Your task to perform on an android device: Search for Italian restaurants on Maps Image 0: 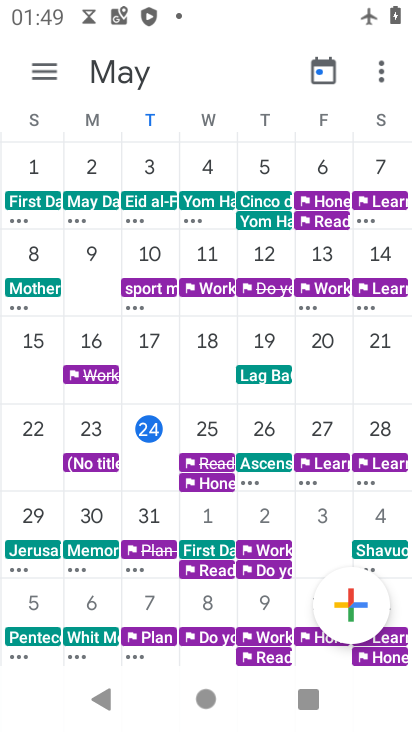
Step 0: press home button
Your task to perform on an android device: Search for Italian restaurants on Maps Image 1: 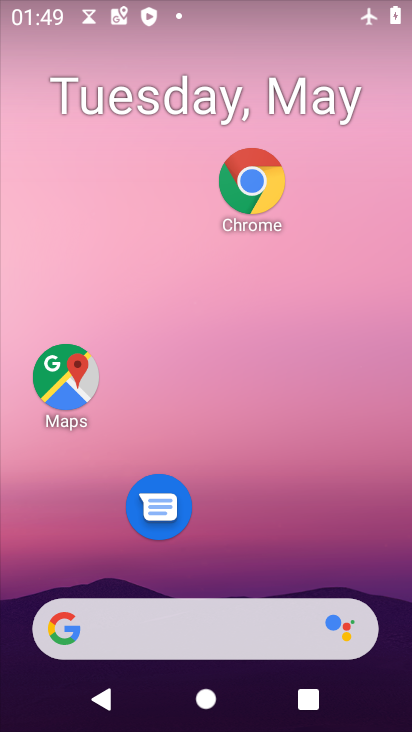
Step 1: drag from (336, 578) to (311, 265)
Your task to perform on an android device: Search for Italian restaurants on Maps Image 2: 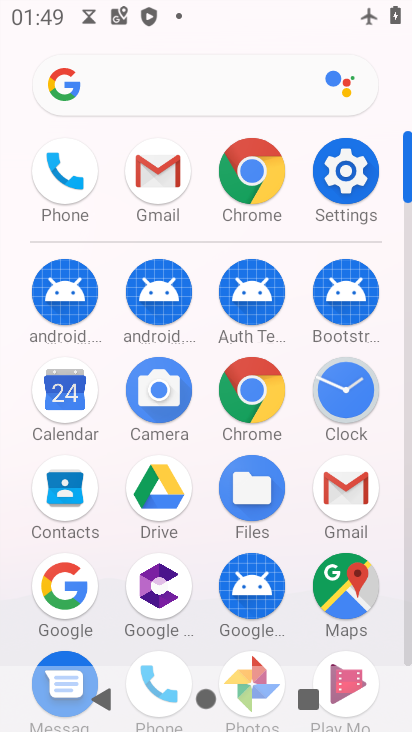
Step 2: click (344, 577)
Your task to perform on an android device: Search for Italian restaurants on Maps Image 3: 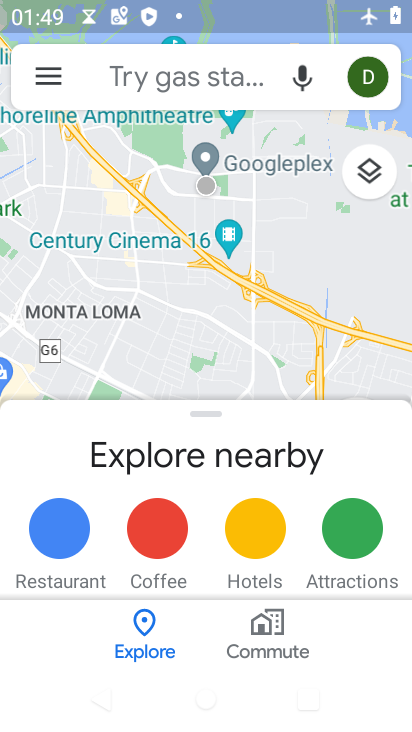
Step 3: click (257, 63)
Your task to perform on an android device: Search for Italian restaurants on Maps Image 4: 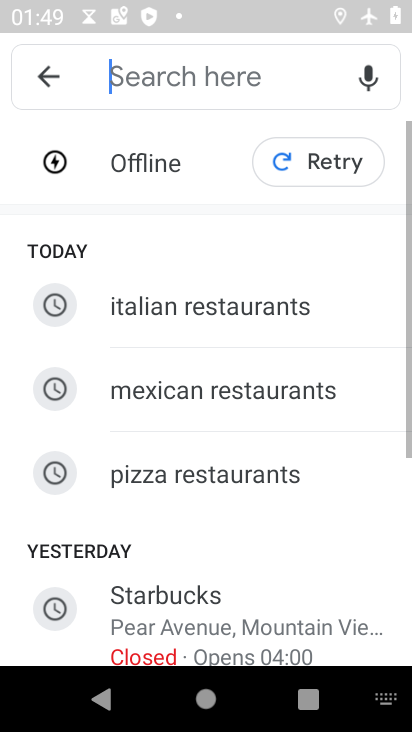
Step 4: click (168, 327)
Your task to perform on an android device: Search for Italian restaurants on Maps Image 5: 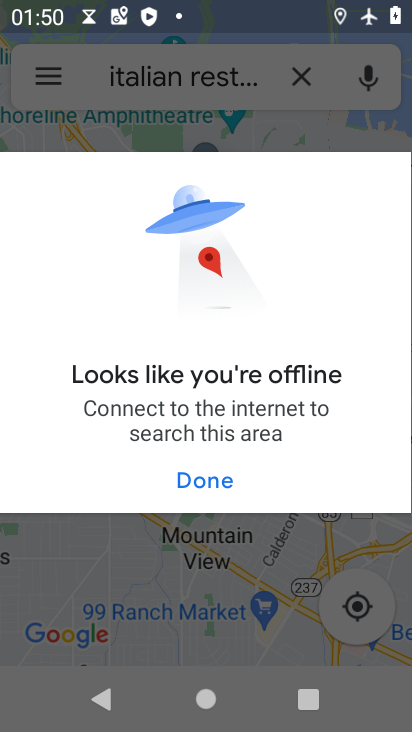
Step 5: click (213, 459)
Your task to perform on an android device: Search for Italian restaurants on Maps Image 6: 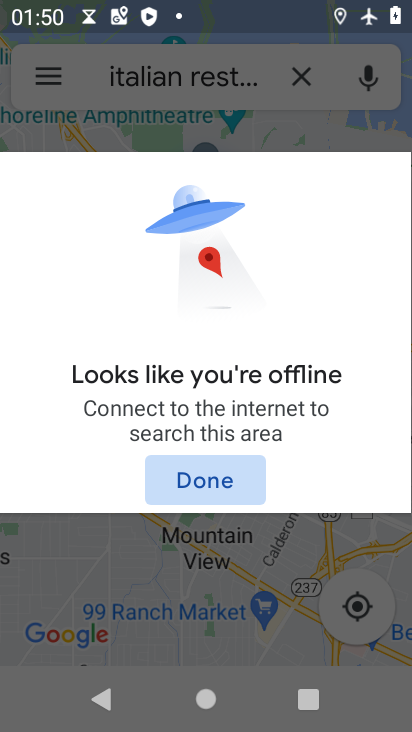
Step 6: click (212, 479)
Your task to perform on an android device: Search for Italian restaurants on Maps Image 7: 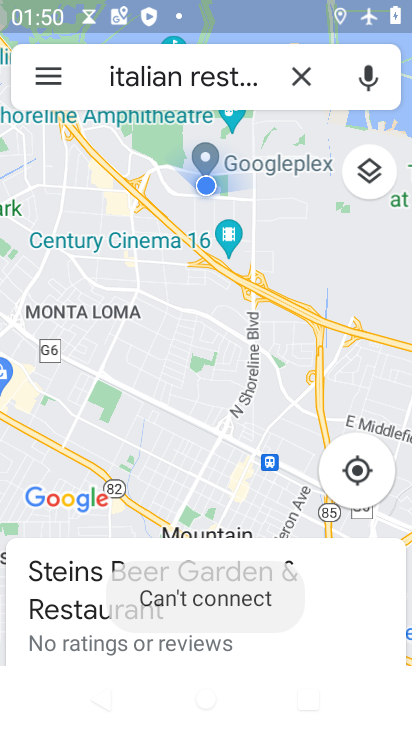
Step 7: task complete